Your task to perform on an android device: Go to settings Image 0: 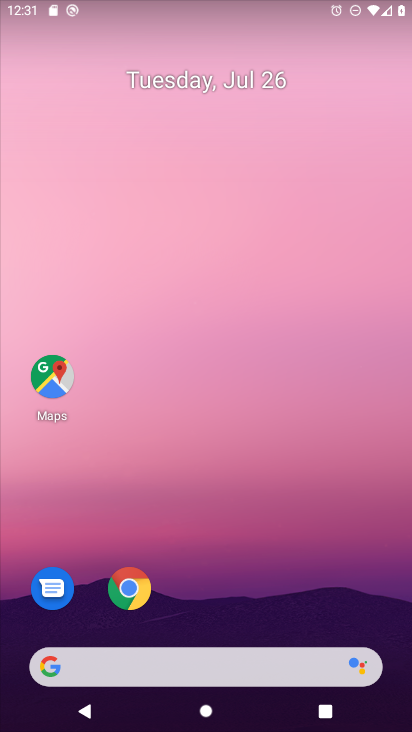
Step 0: drag from (265, 625) to (201, 238)
Your task to perform on an android device: Go to settings Image 1: 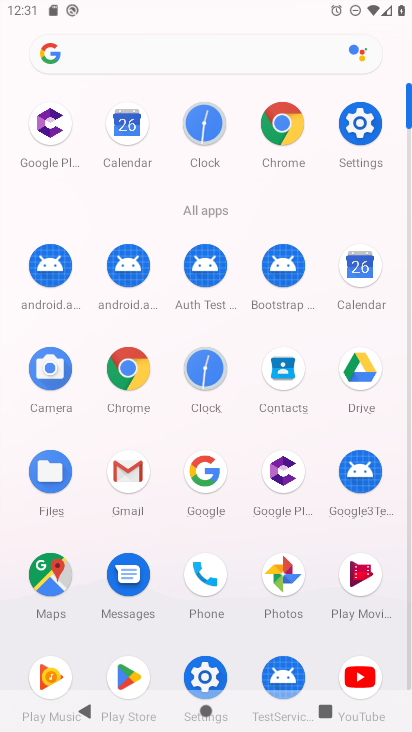
Step 1: click (369, 132)
Your task to perform on an android device: Go to settings Image 2: 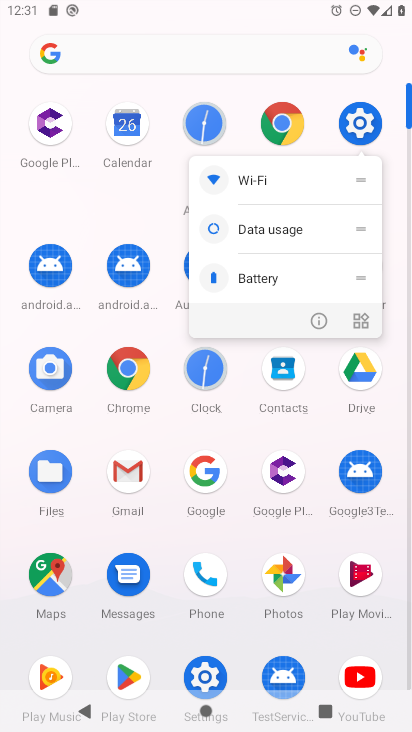
Step 2: click (369, 132)
Your task to perform on an android device: Go to settings Image 3: 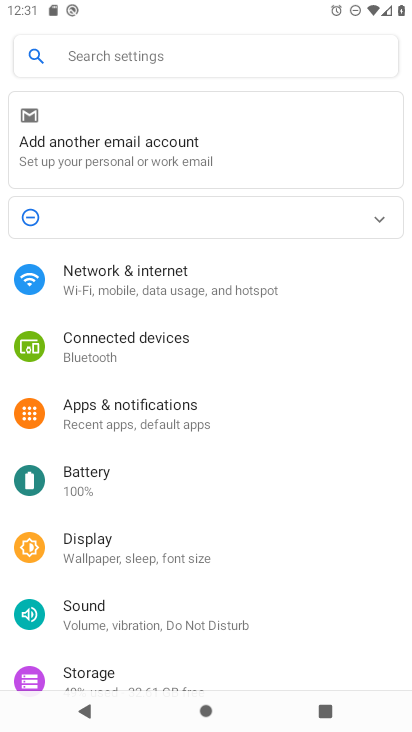
Step 3: task complete